Your task to perform on an android device: open chrome privacy settings Image 0: 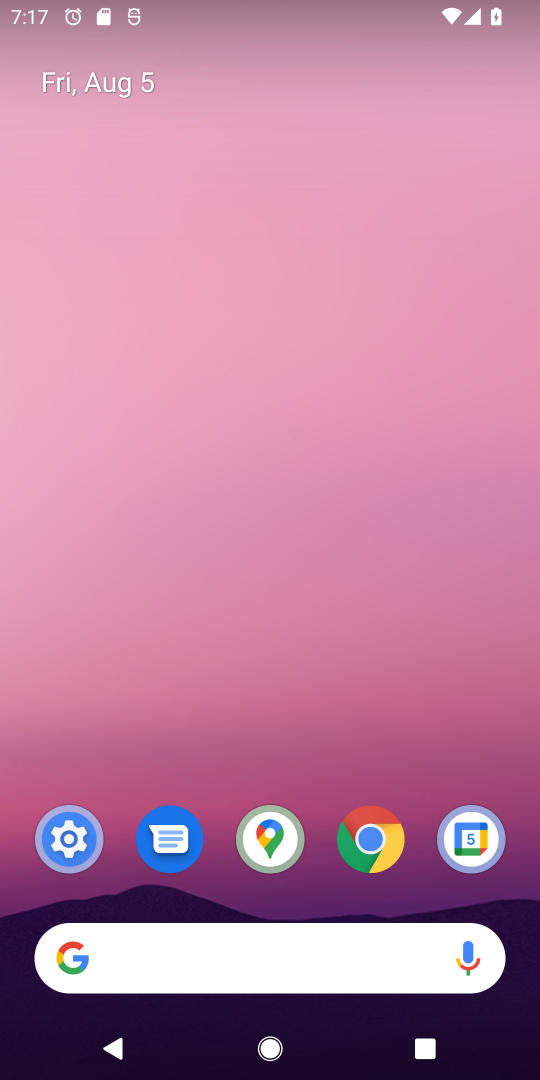
Step 0: click (355, 822)
Your task to perform on an android device: open chrome privacy settings Image 1: 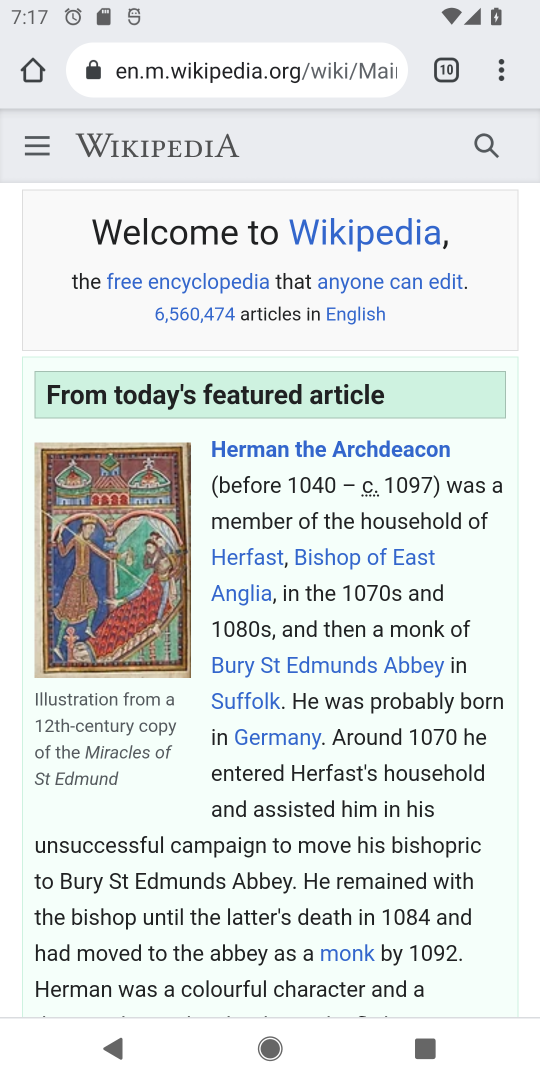
Step 1: click (498, 84)
Your task to perform on an android device: open chrome privacy settings Image 2: 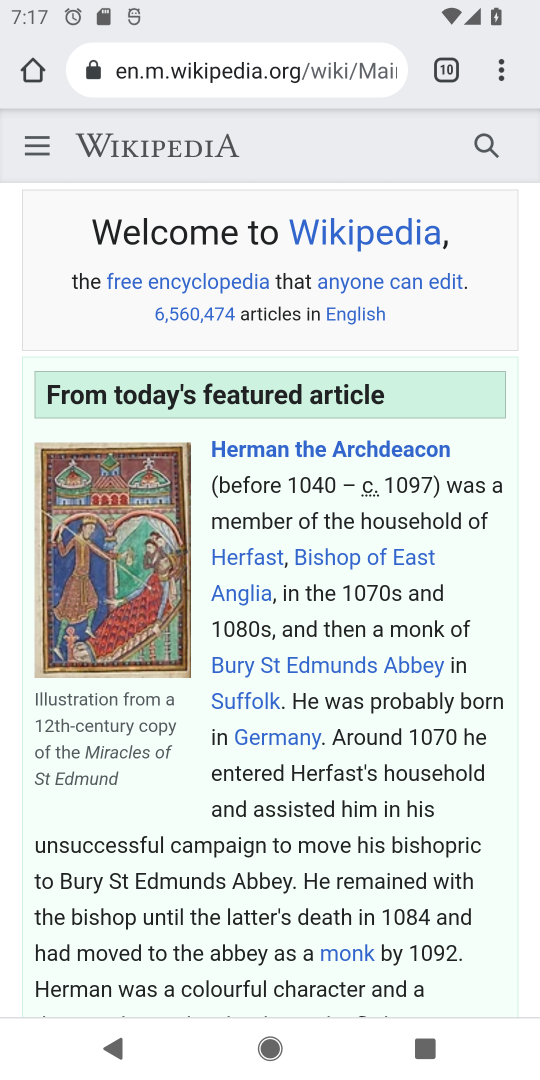
Step 2: drag from (498, 84) to (300, 828)
Your task to perform on an android device: open chrome privacy settings Image 3: 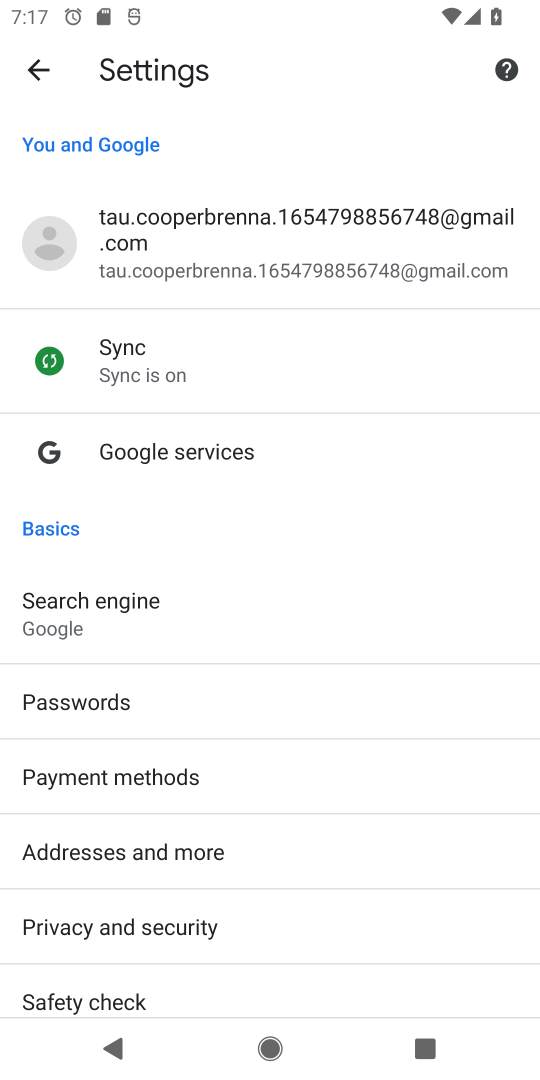
Step 3: drag from (223, 924) to (232, 582)
Your task to perform on an android device: open chrome privacy settings Image 4: 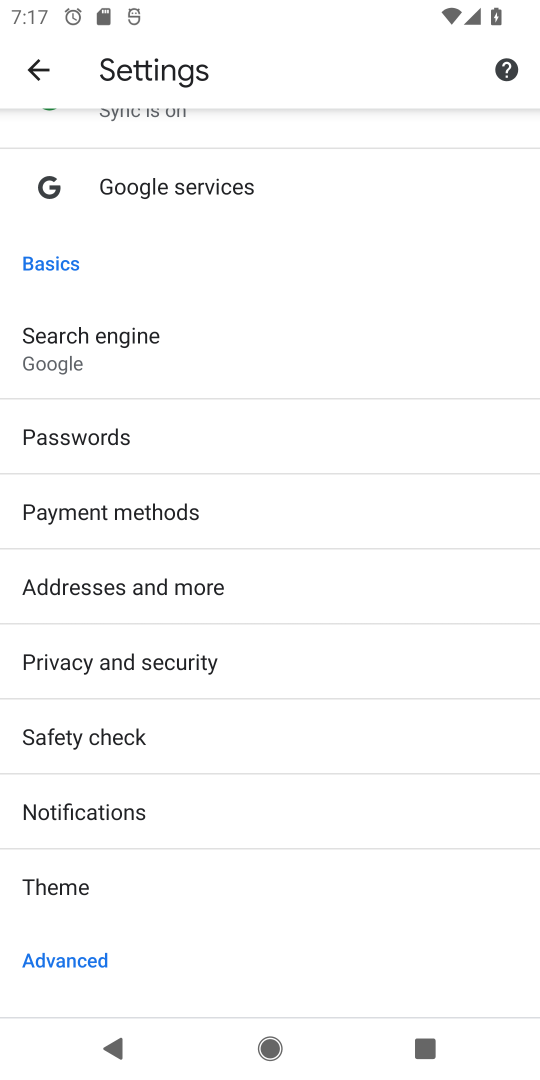
Step 4: click (181, 674)
Your task to perform on an android device: open chrome privacy settings Image 5: 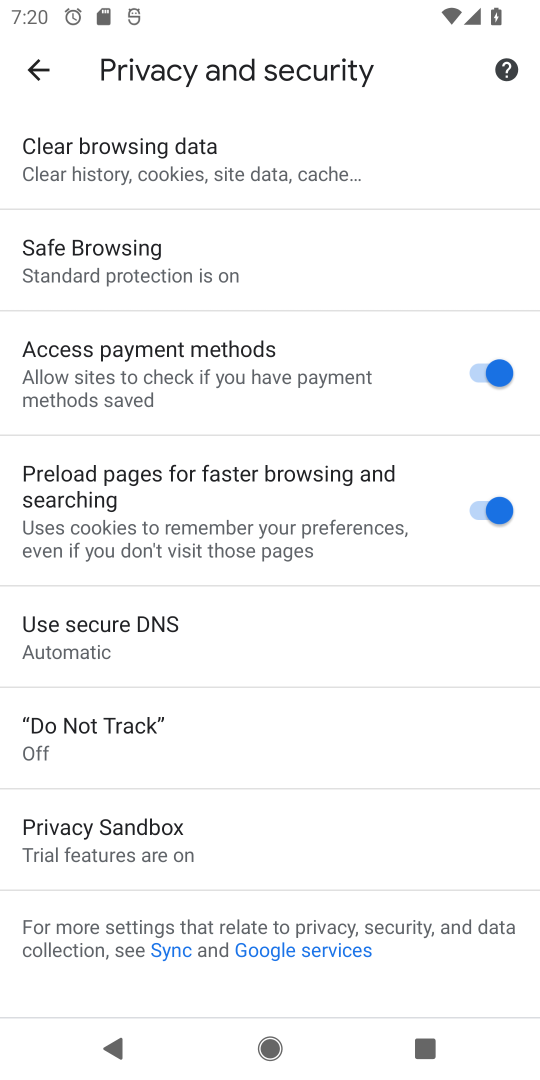
Step 5: task complete